Your task to perform on an android device: turn pop-ups on in chrome Image 0: 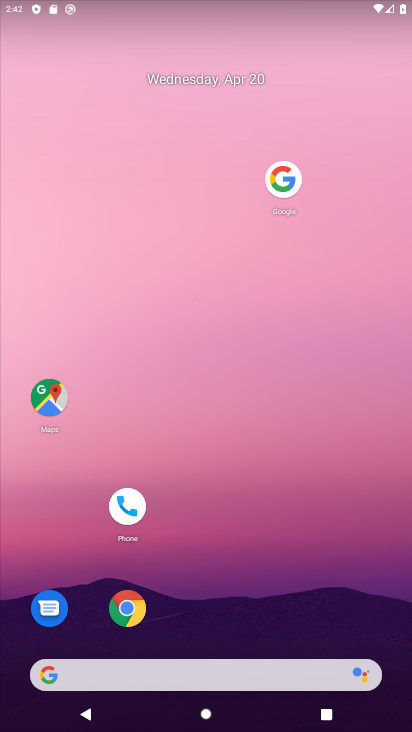
Step 0: drag from (293, 474) to (245, 28)
Your task to perform on an android device: turn pop-ups on in chrome Image 1: 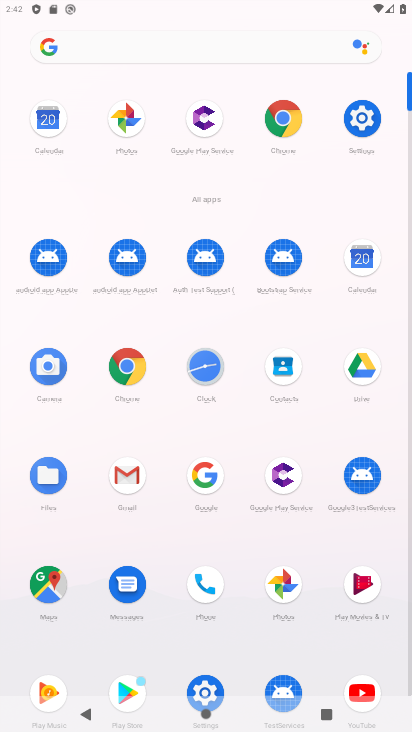
Step 1: click (116, 368)
Your task to perform on an android device: turn pop-ups on in chrome Image 2: 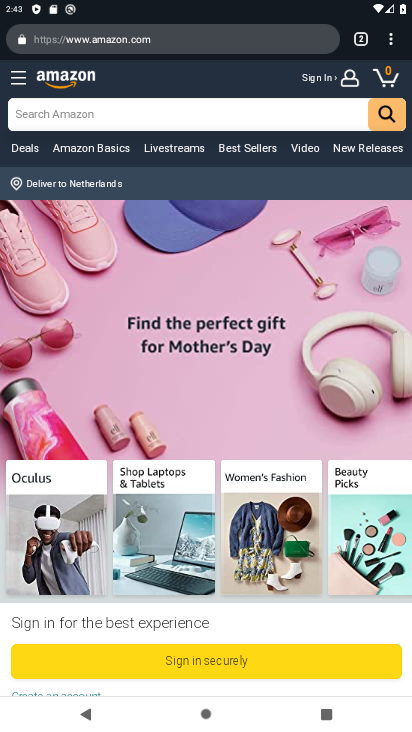
Step 2: drag from (391, 42) to (241, 516)
Your task to perform on an android device: turn pop-ups on in chrome Image 3: 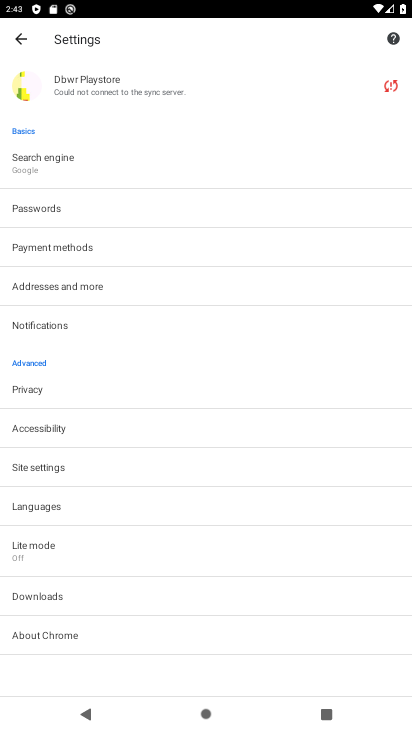
Step 3: drag from (114, 621) to (222, 371)
Your task to perform on an android device: turn pop-ups on in chrome Image 4: 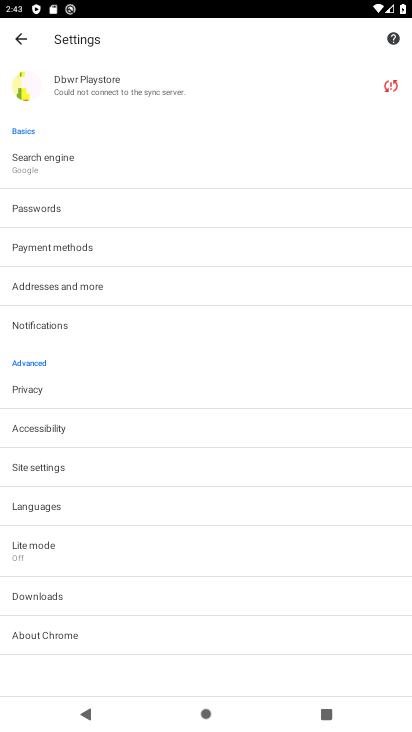
Step 4: click (54, 476)
Your task to perform on an android device: turn pop-ups on in chrome Image 5: 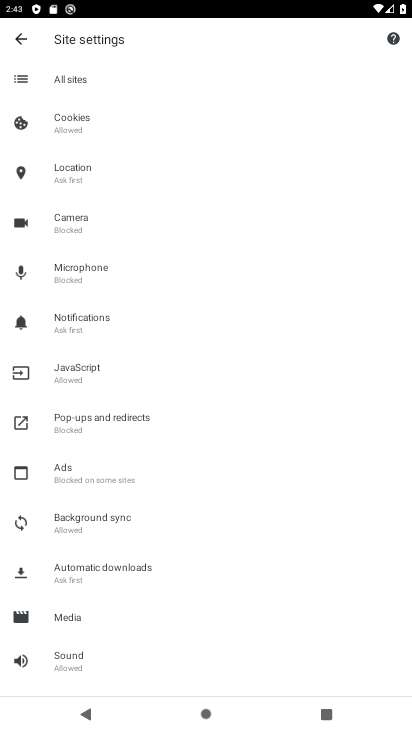
Step 5: click (97, 414)
Your task to perform on an android device: turn pop-ups on in chrome Image 6: 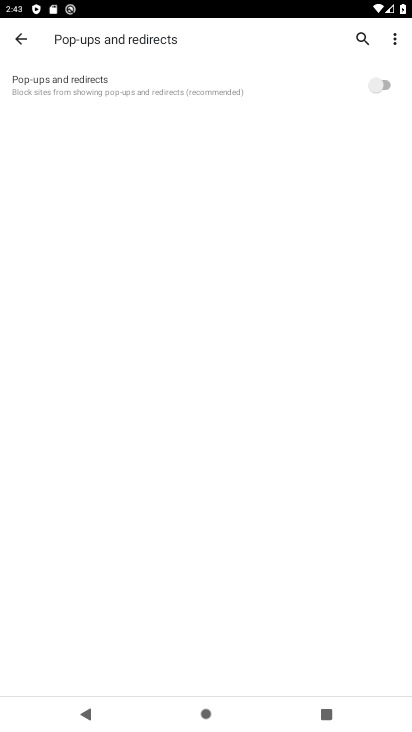
Step 6: click (339, 89)
Your task to perform on an android device: turn pop-ups on in chrome Image 7: 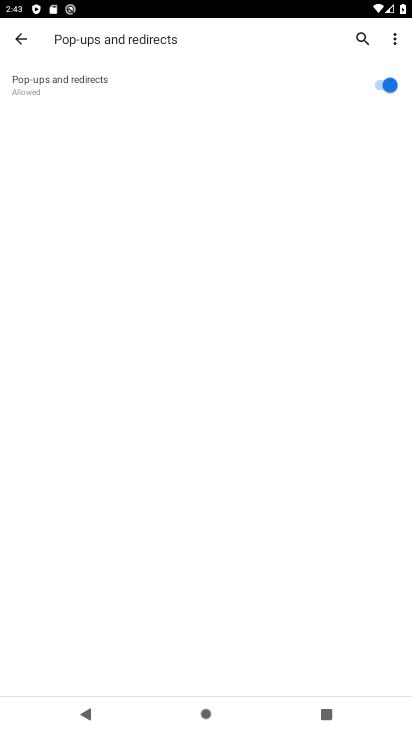
Step 7: task complete